Your task to perform on an android device: Go to battery settings Image 0: 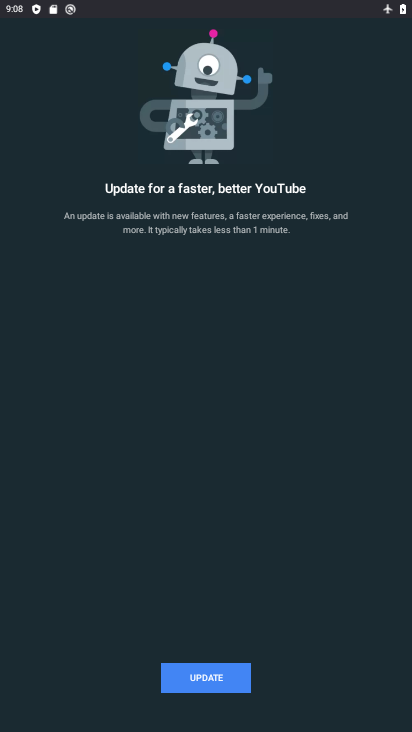
Step 0: press home button
Your task to perform on an android device: Go to battery settings Image 1: 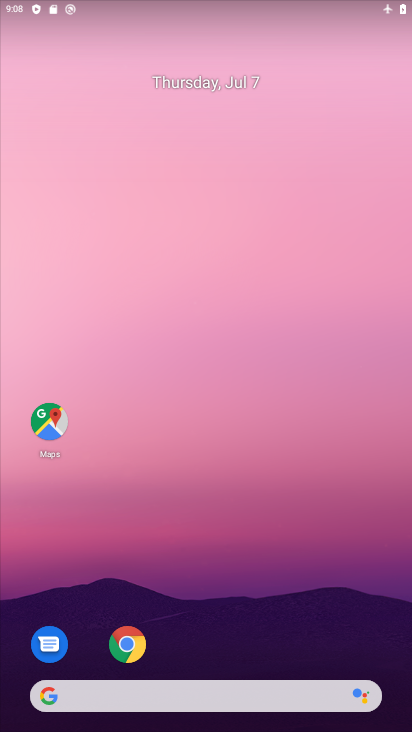
Step 1: drag from (279, 359) to (234, 83)
Your task to perform on an android device: Go to battery settings Image 2: 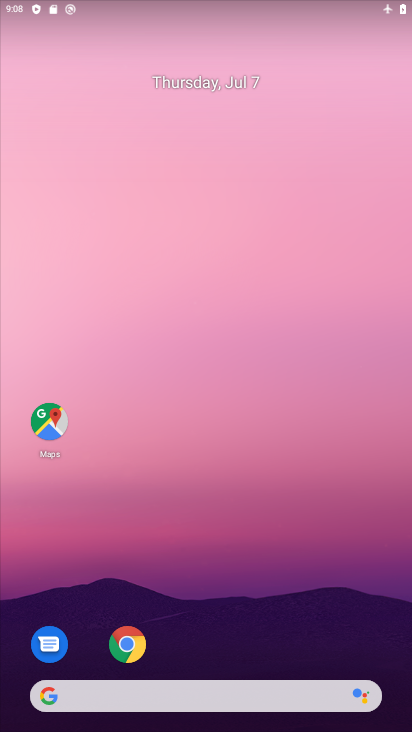
Step 2: drag from (252, 570) to (74, 11)
Your task to perform on an android device: Go to battery settings Image 3: 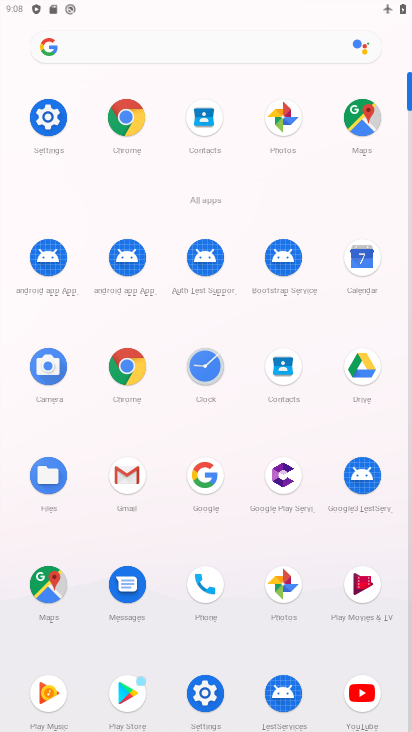
Step 3: click (50, 117)
Your task to perform on an android device: Go to battery settings Image 4: 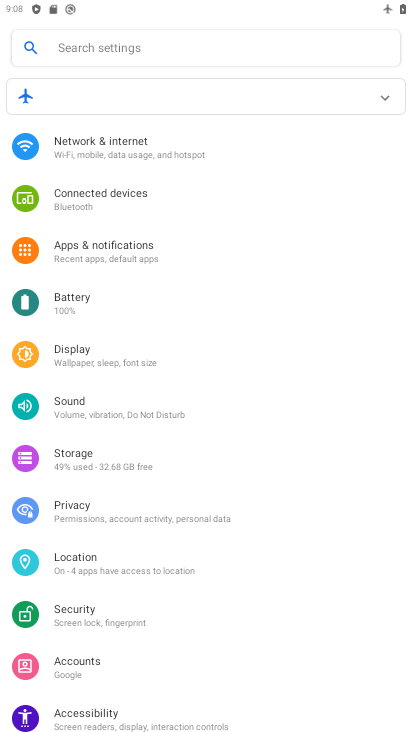
Step 4: click (52, 306)
Your task to perform on an android device: Go to battery settings Image 5: 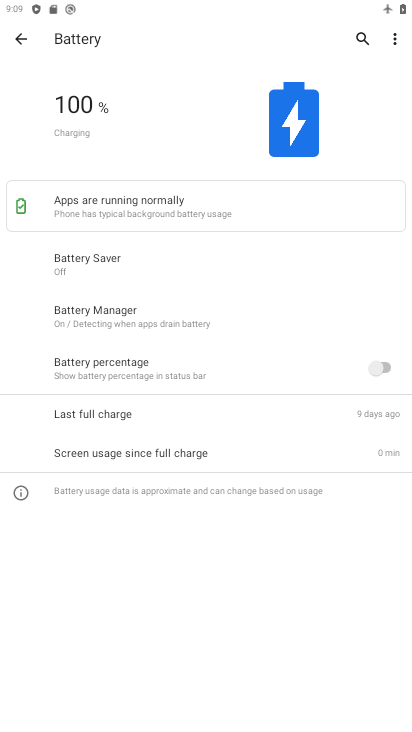
Step 5: task complete